Your task to perform on an android device: Open Chrome and go to the settings page Image 0: 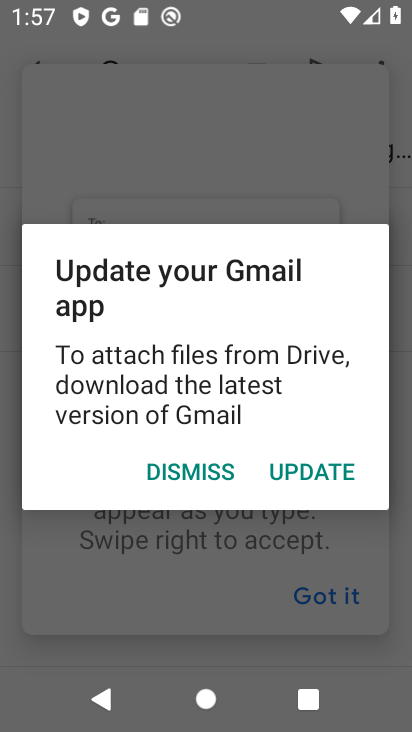
Step 0: press home button
Your task to perform on an android device: Open Chrome and go to the settings page Image 1: 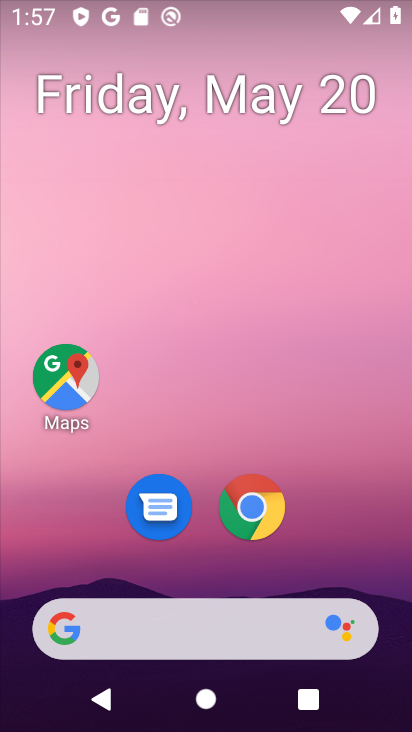
Step 1: click (249, 501)
Your task to perform on an android device: Open Chrome and go to the settings page Image 2: 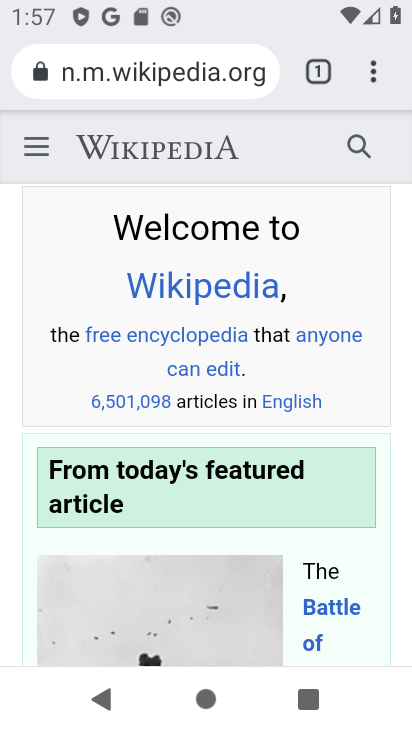
Step 2: click (369, 78)
Your task to perform on an android device: Open Chrome and go to the settings page Image 3: 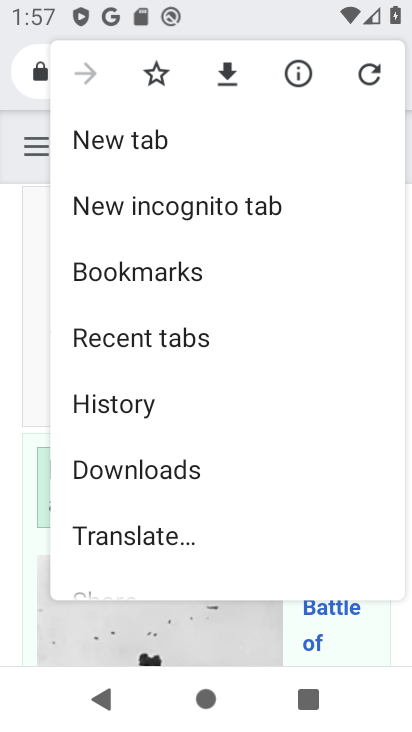
Step 3: drag from (220, 487) to (123, 123)
Your task to perform on an android device: Open Chrome and go to the settings page Image 4: 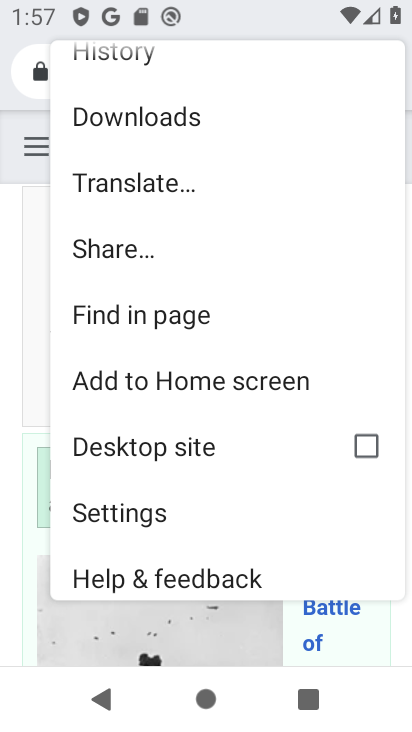
Step 4: click (157, 509)
Your task to perform on an android device: Open Chrome and go to the settings page Image 5: 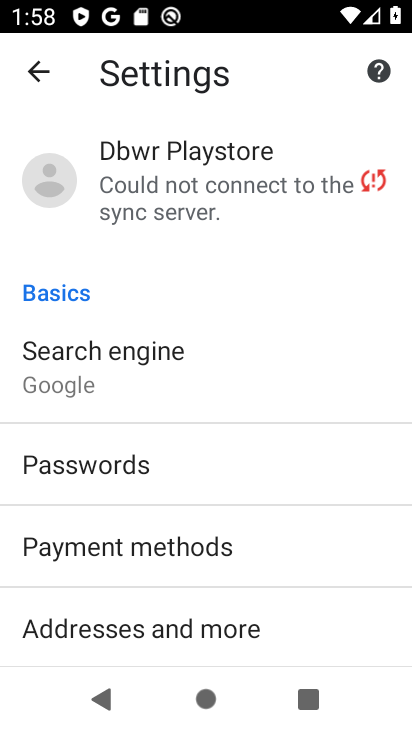
Step 5: task complete